Your task to perform on an android device: Go to Google Image 0: 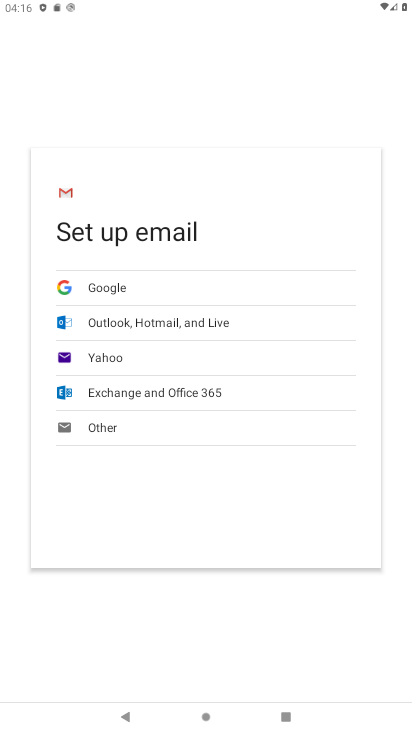
Step 0: press home button
Your task to perform on an android device: Go to Google Image 1: 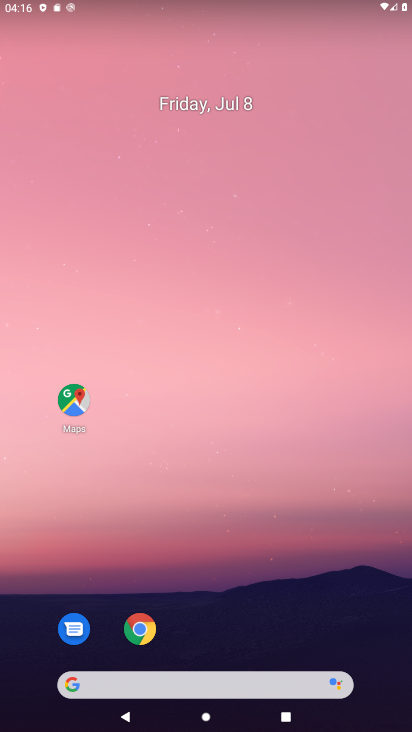
Step 1: drag from (238, 715) to (237, 90)
Your task to perform on an android device: Go to Google Image 2: 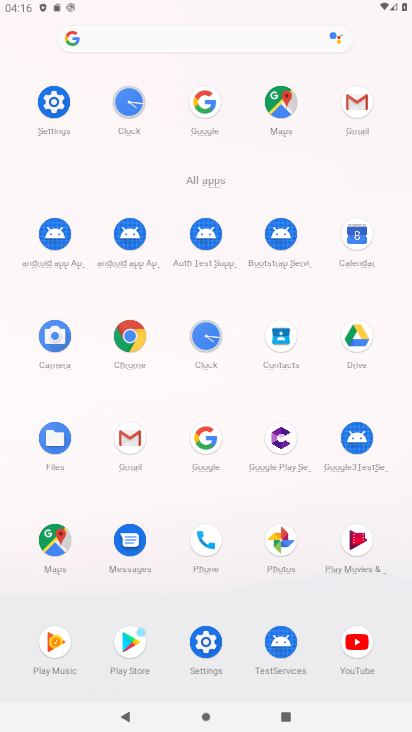
Step 2: click (205, 440)
Your task to perform on an android device: Go to Google Image 3: 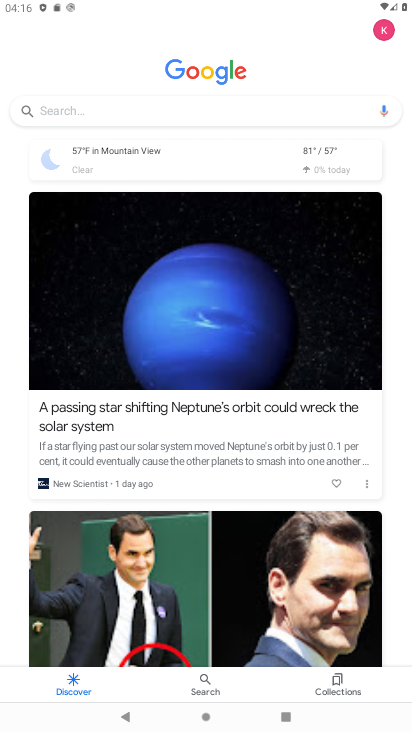
Step 3: task complete